Your task to perform on an android device: Go to ESPN.com Image 0: 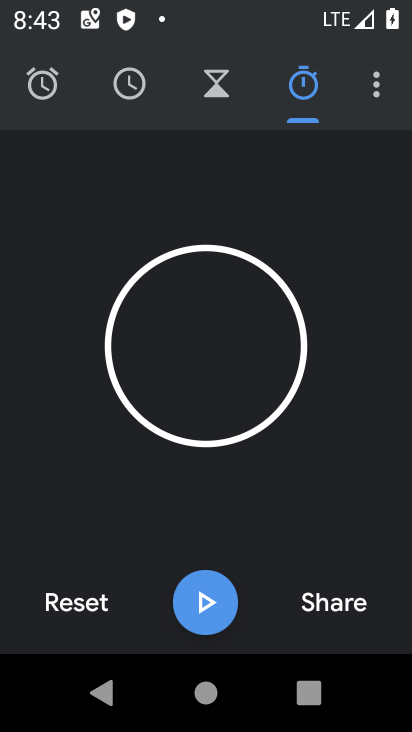
Step 0: press home button
Your task to perform on an android device: Go to ESPN.com Image 1: 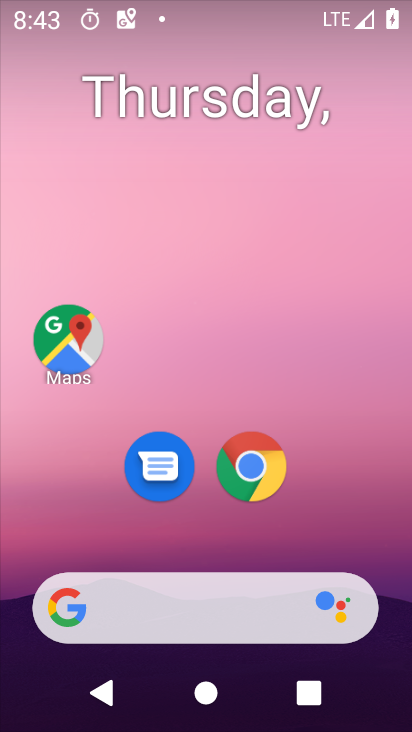
Step 1: click (218, 603)
Your task to perform on an android device: Go to ESPN.com Image 2: 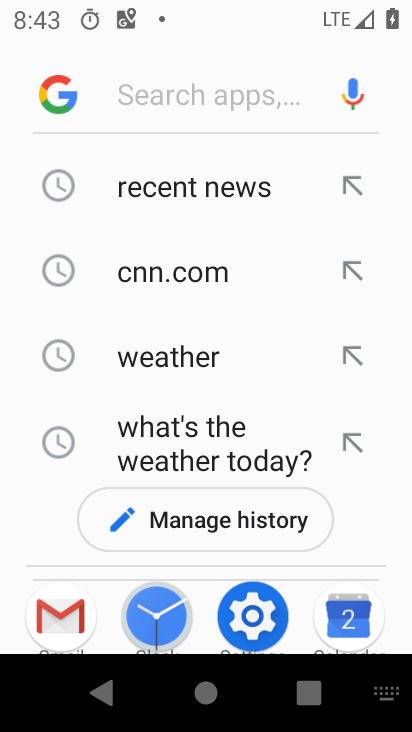
Step 2: type "ESPN.com"
Your task to perform on an android device: Go to ESPN.com Image 3: 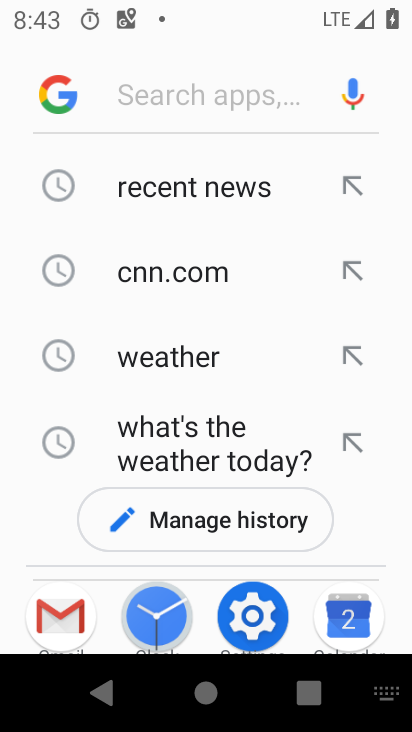
Step 3: click (199, 99)
Your task to perform on an android device: Go to ESPN.com Image 4: 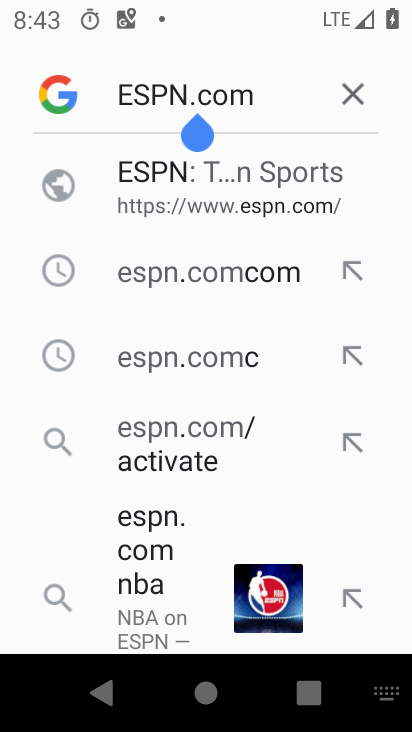
Step 4: click (162, 164)
Your task to perform on an android device: Go to ESPN.com Image 5: 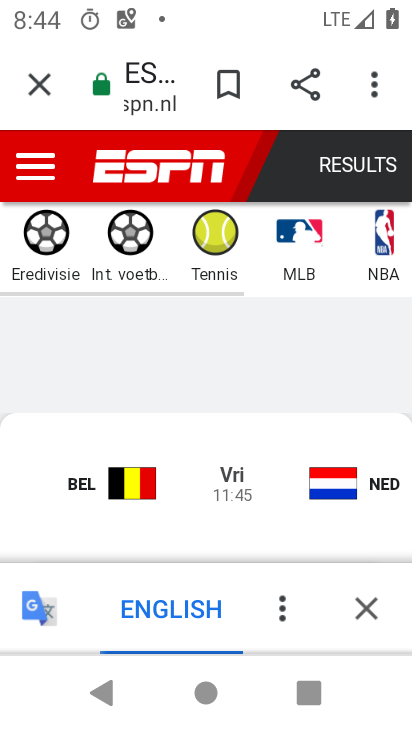
Step 5: click (361, 610)
Your task to perform on an android device: Go to ESPN.com Image 6: 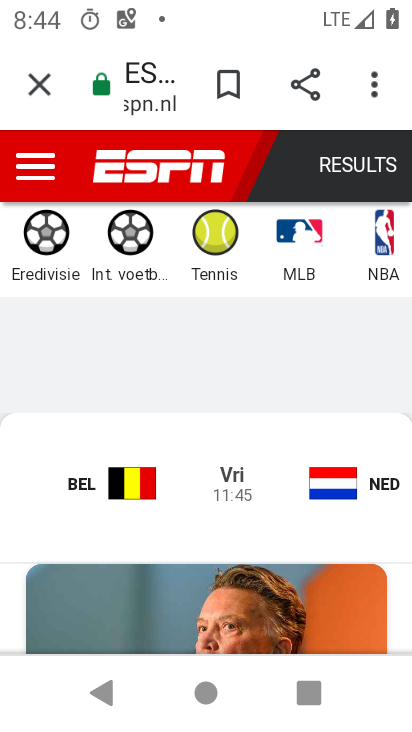
Step 6: task complete